Your task to perform on an android device: Set the phone to "Do not disturb". Image 0: 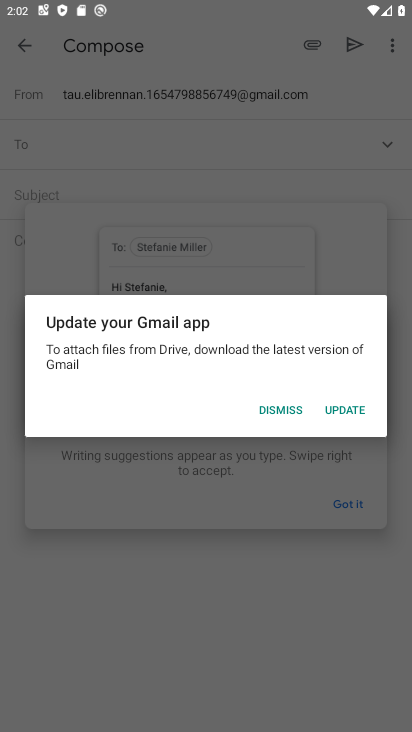
Step 0: press home button
Your task to perform on an android device: Set the phone to "Do not disturb". Image 1: 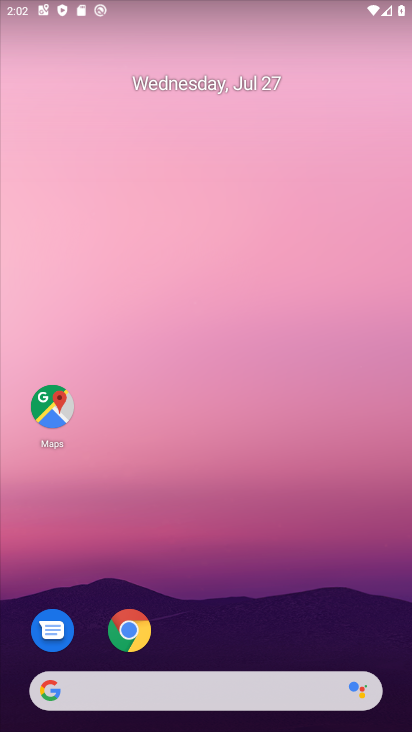
Step 1: drag from (374, 641) to (350, 148)
Your task to perform on an android device: Set the phone to "Do not disturb". Image 2: 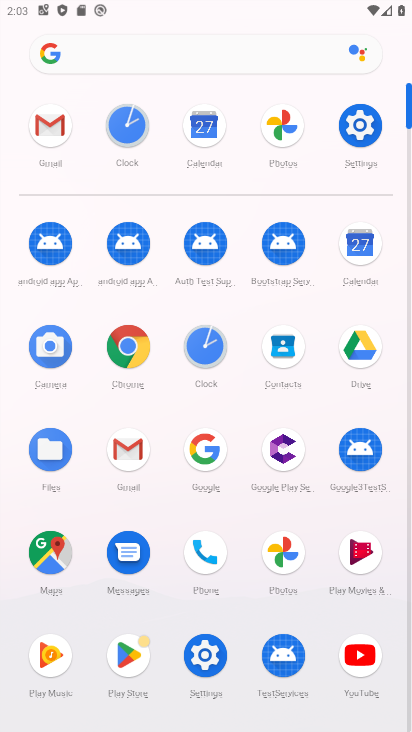
Step 2: click (203, 653)
Your task to perform on an android device: Set the phone to "Do not disturb". Image 3: 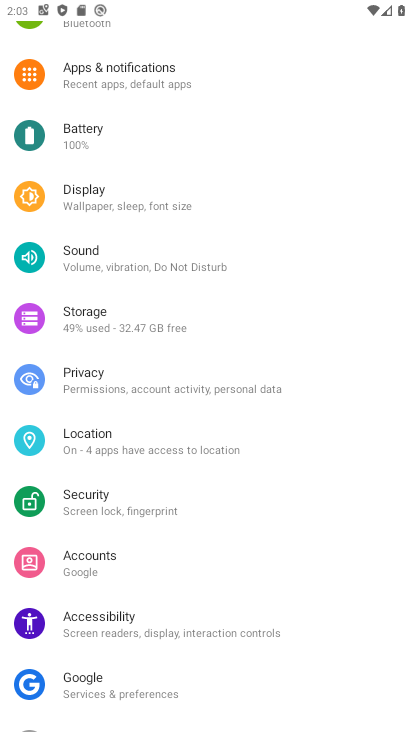
Step 3: click (100, 256)
Your task to perform on an android device: Set the phone to "Do not disturb". Image 4: 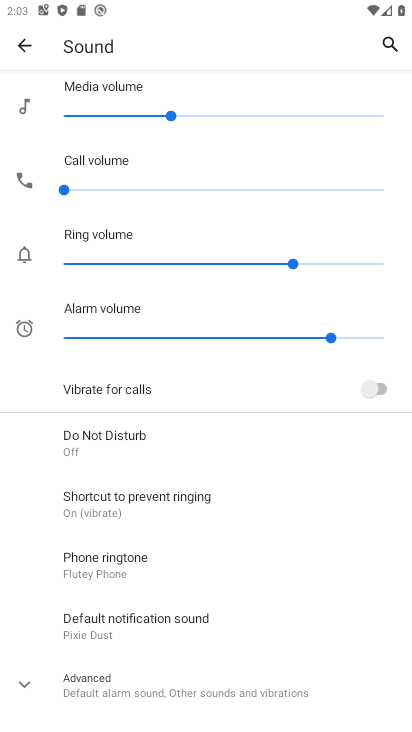
Step 4: click (84, 437)
Your task to perform on an android device: Set the phone to "Do not disturb". Image 5: 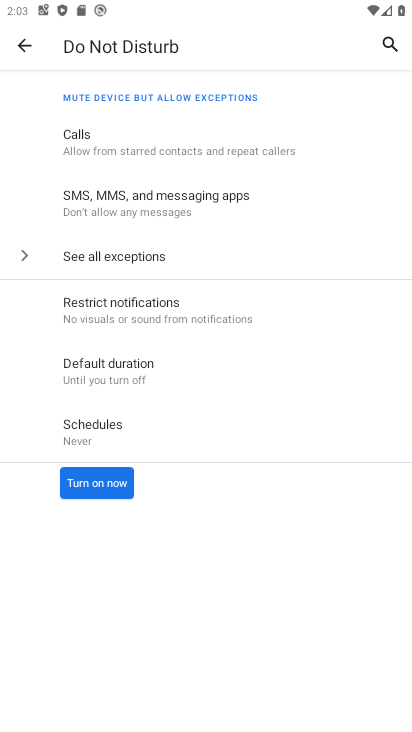
Step 5: click (88, 487)
Your task to perform on an android device: Set the phone to "Do not disturb". Image 6: 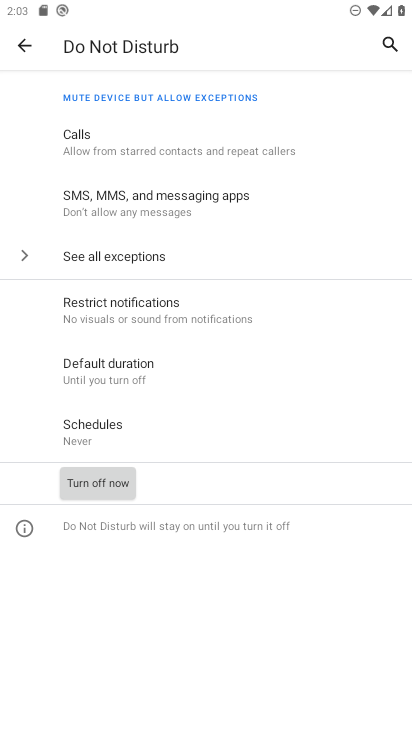
Step 6: task complete